Your task to perform on an android device: install app "Instagram" Image 0: 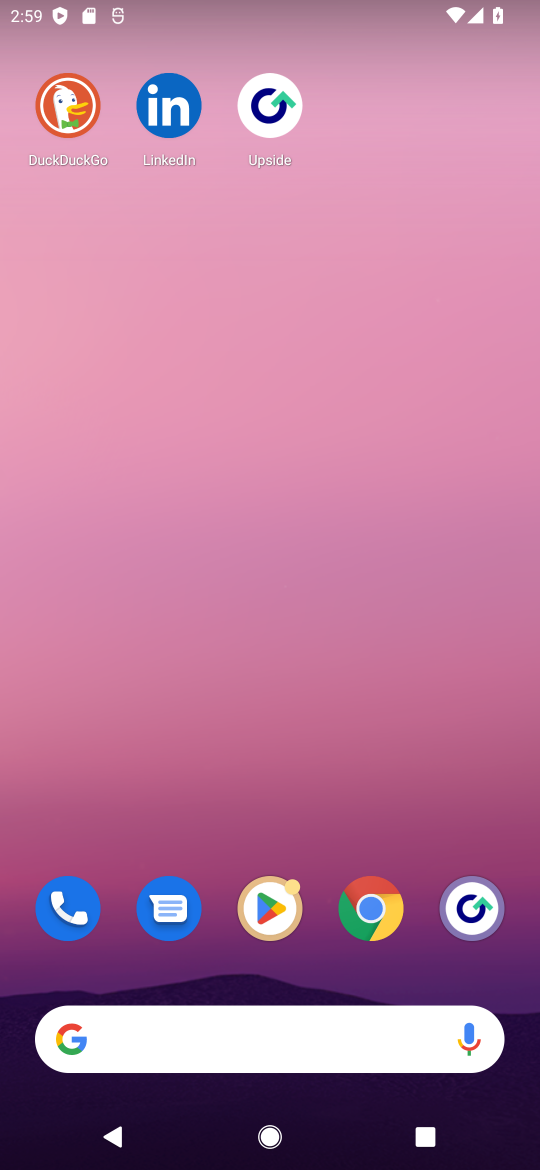
Step 0: click (236, 903)
Your task to perform on an android device: install app "Instagram" Image 1: 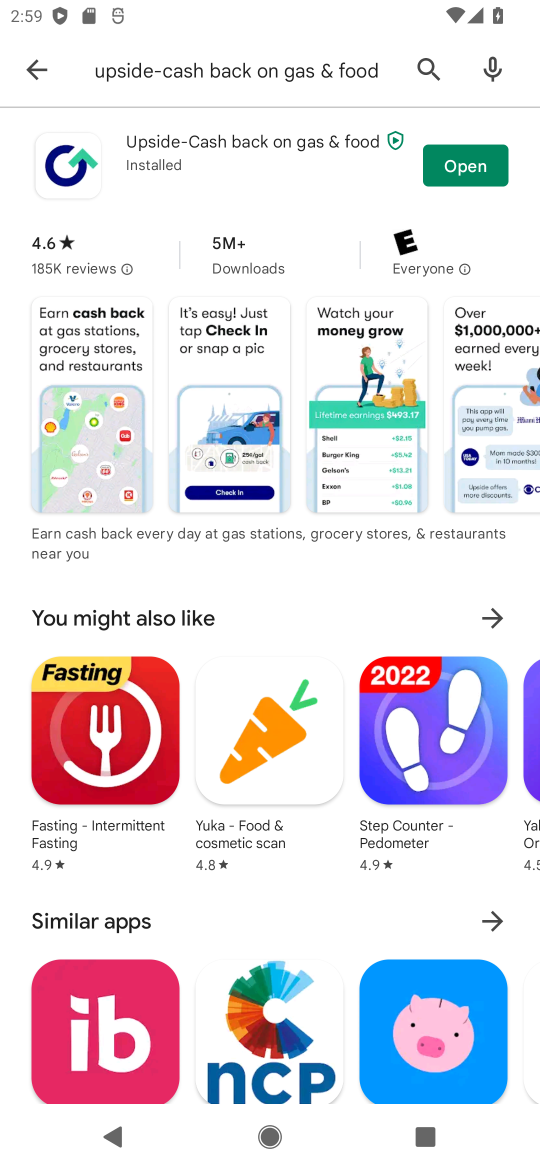
Step 1: click (442, 70)
Your task to perform on an android device: install app "Instagram" Image 2: 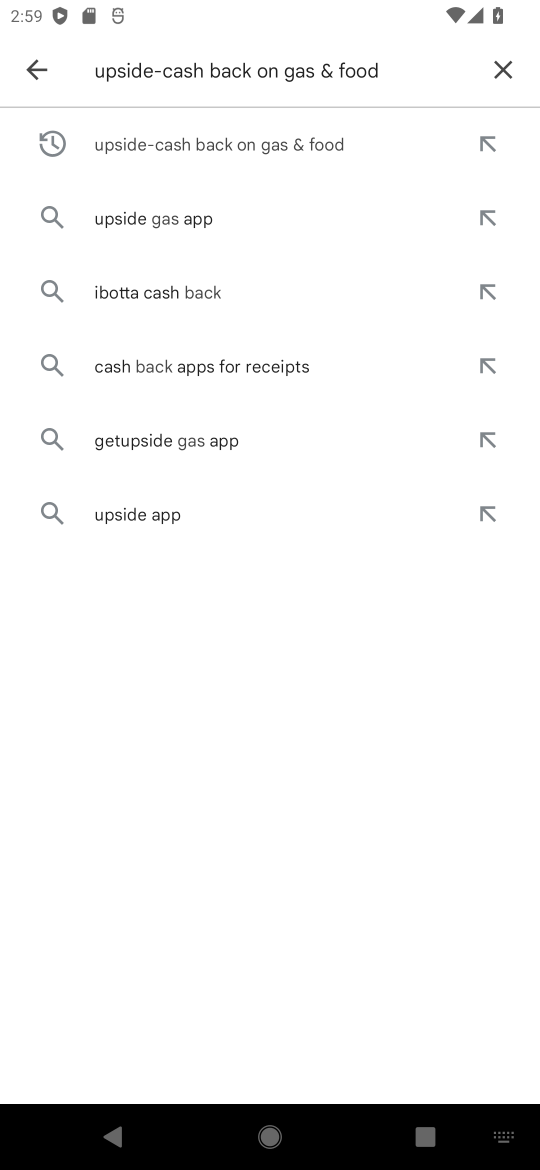
Step 2: click (491, 68)
Your task to perform on an android device: install app "Instagram" Image 3: 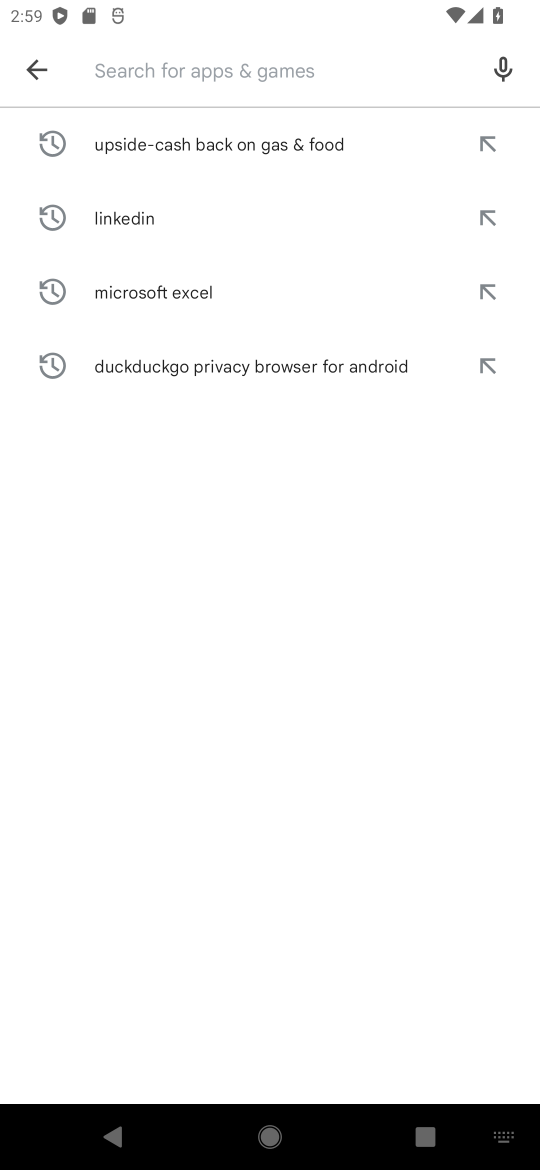
Step 3: type "Instagram"
Your task to perform on an android device: install app "Instagram" Image 4: 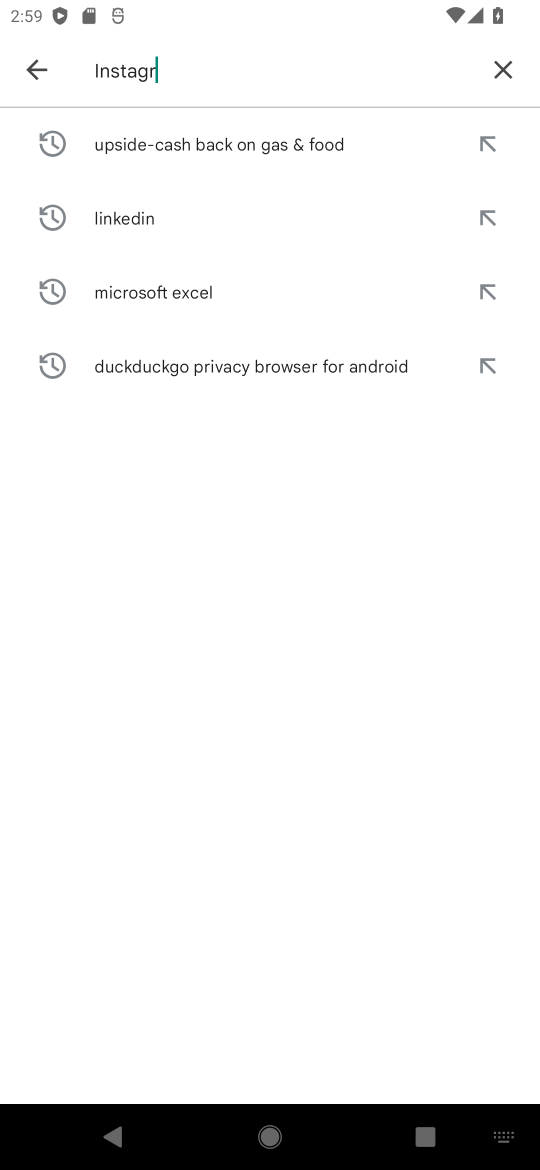
Step 4: type ""
Your task to perform on an android device: install app "Instagram" Image 5: 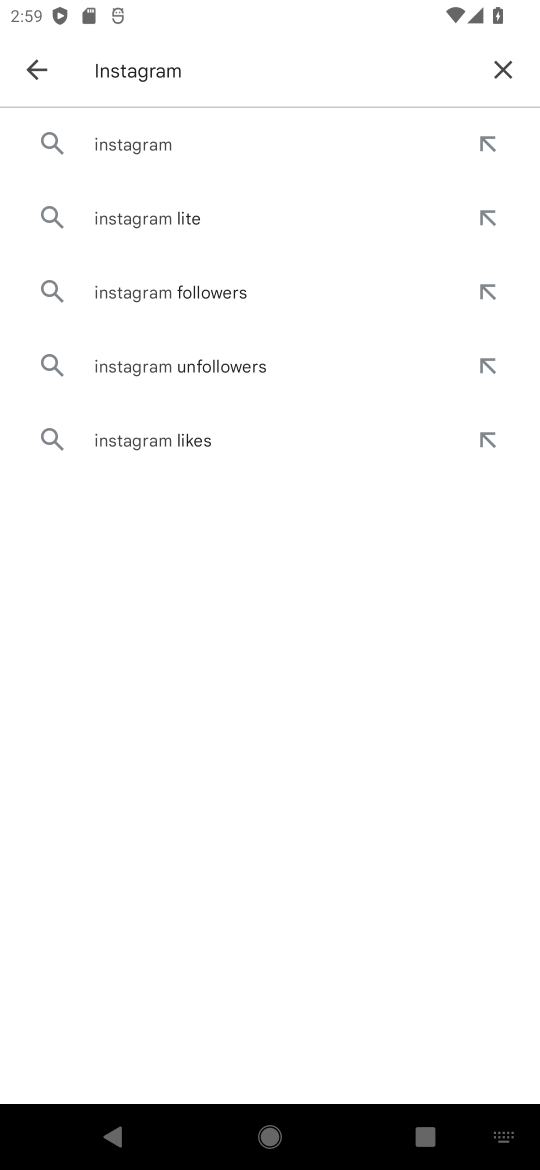
Step 5: click (119, 126)
Your task to perform on an android device: install app "Instagram" Image 6: 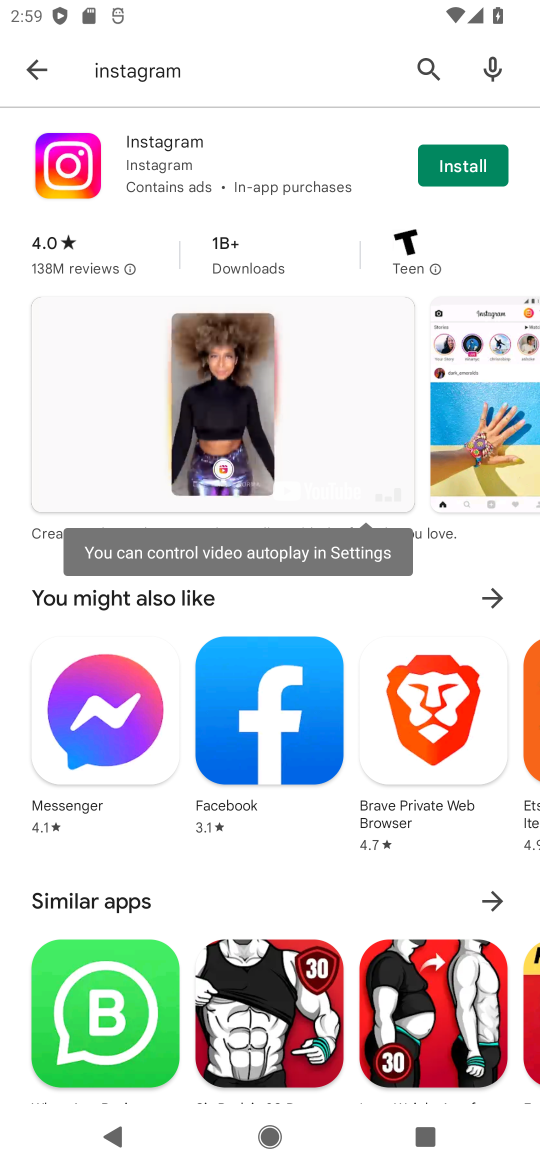
Step 6: click (471, 174)
Your task to perform on an android device: install app "Instagram" Image 7: 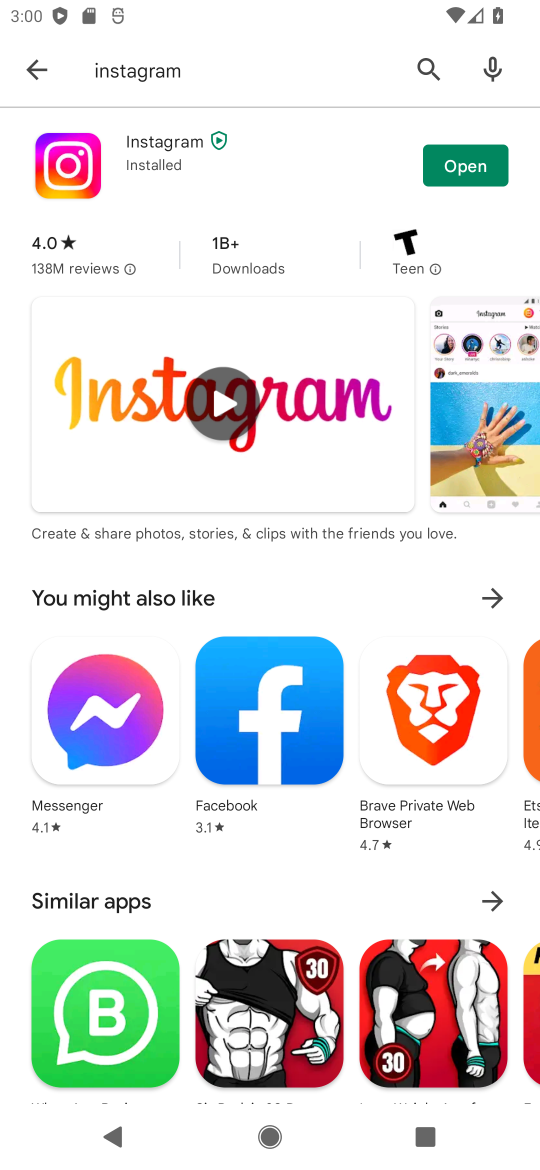
Step 7: task complete